Your task to perform on an android device: change keyboard looks Image 0: 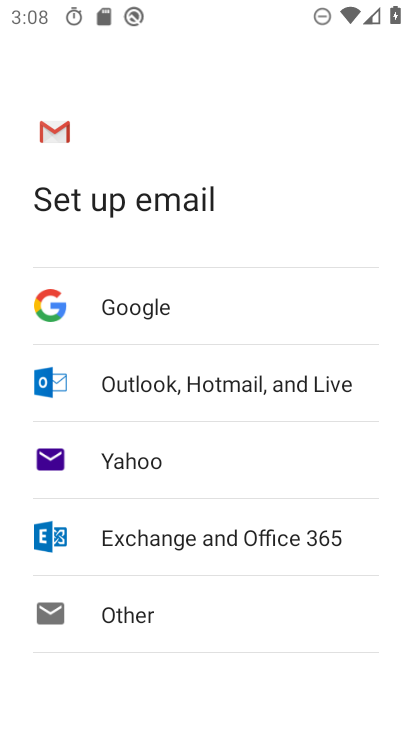
Step 0: press home button
Your task to perform on an android device: change keyboard looks Image 1: 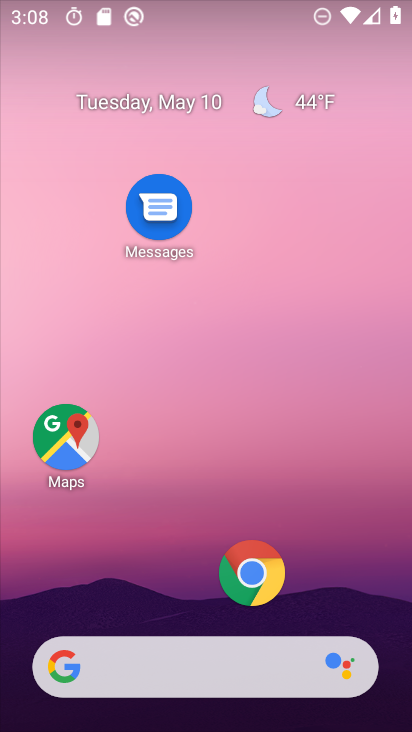
Step 1: drag from (195, 600) to (264, 193)
Your task to perform on an android device: change keyboard looks Image 2: 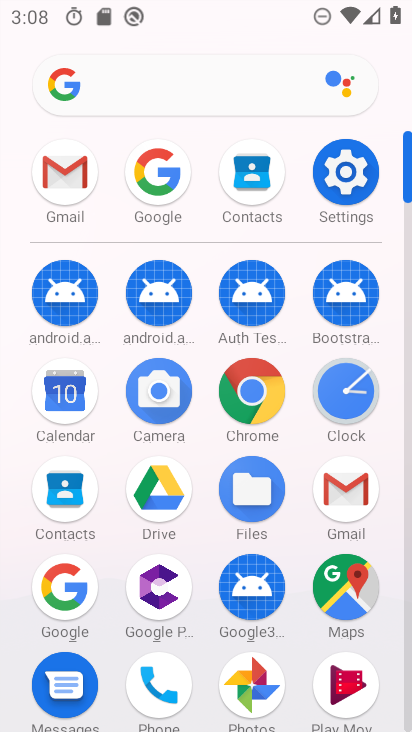
Step 2: click (318, 169)
Your task to perform on an android device: change keyboard looks Image 3: 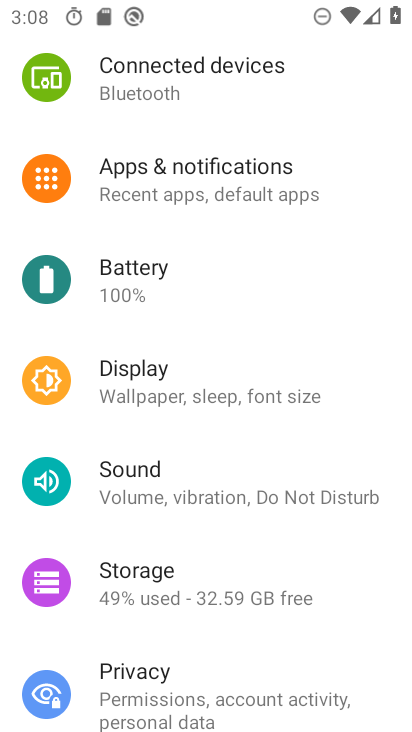
Step 3: drag from (211, 545) to (270, 303)
Your task to perform on an android device: change keyboard looks Image 4: 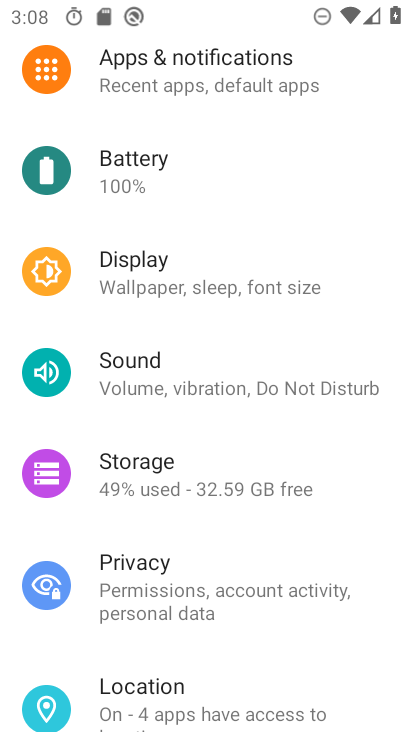
Step 4: drag from (224, 212) to (254, 92)
Your task to perform on an android device: change keyboard looks Image 5: 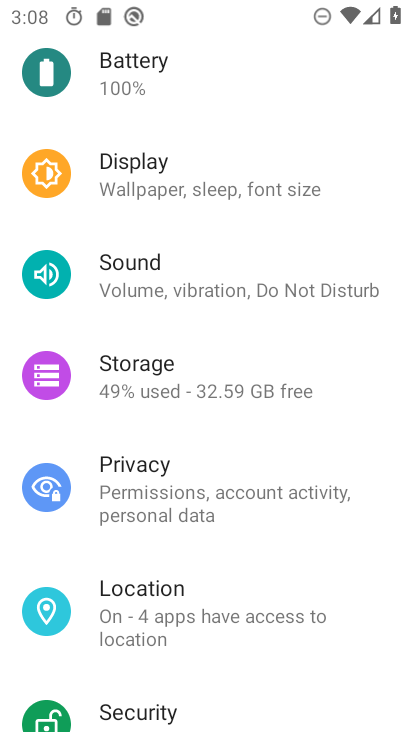
Step 5: drag from (236, 675) to (283, 272)
Your task to perform on an android device: change keyboard looks Image 6: 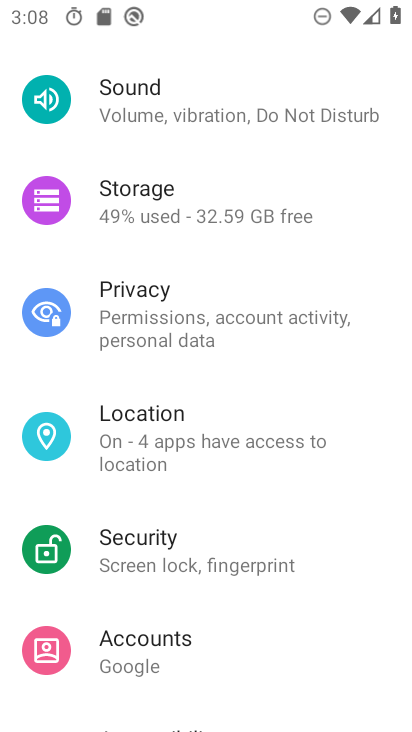
Step 6: drag from (211, 620) to (250, 285)
Your task to perform on an android device: change keyboard looks Image 7: 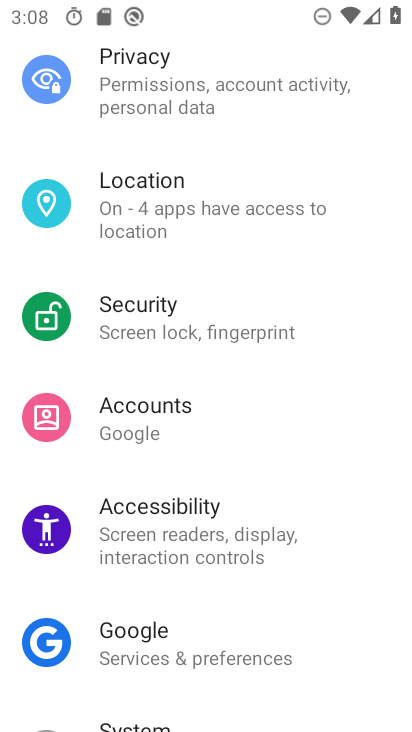
Step 7: drag from (194, 650) to (274, 289)
Your task to perform on an android device: change keyboard looks Image 8: 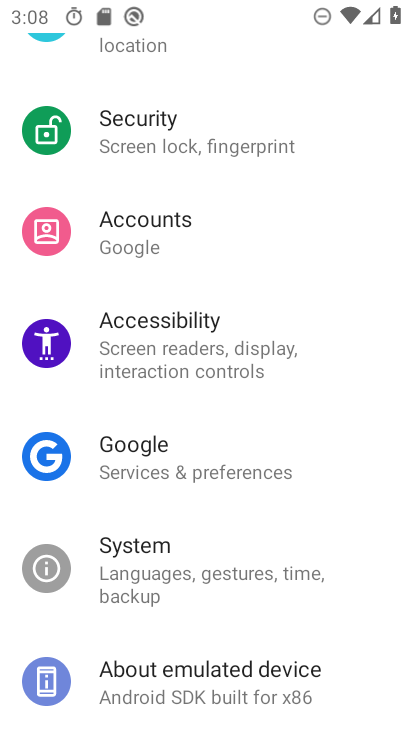
Step 8: click (222, 564)
Your task to perform on an android device: change keyboard looks Image 9: 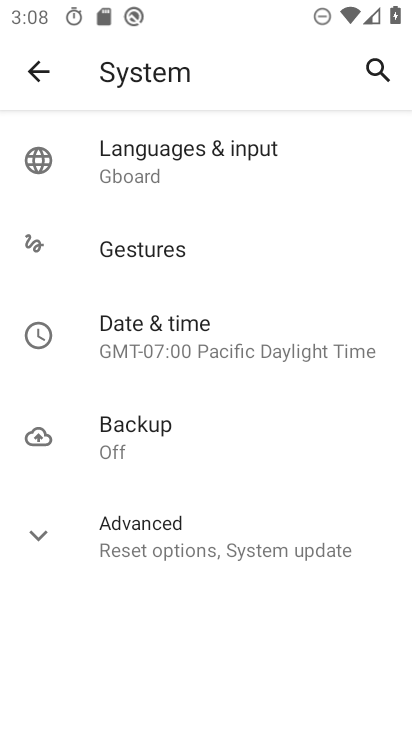
Step 9: click (168, 178)
Your task to perform on an android device: change keyboard looks Image 10: 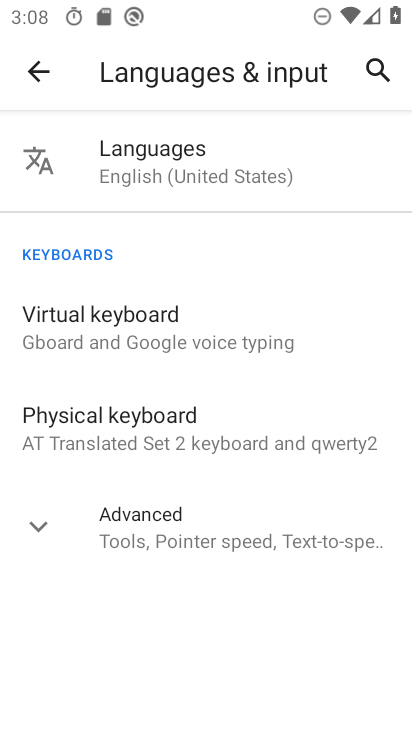
Step 10: click (111, 339)
Your task to perform on an android device: change keyboard looks Image 11: 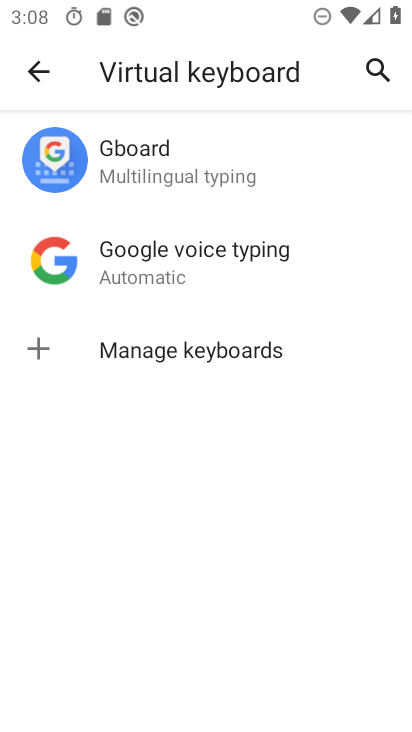
Step 11: click (189, 164)
Your task to perform on an android device: change keyboard looks Image 12: 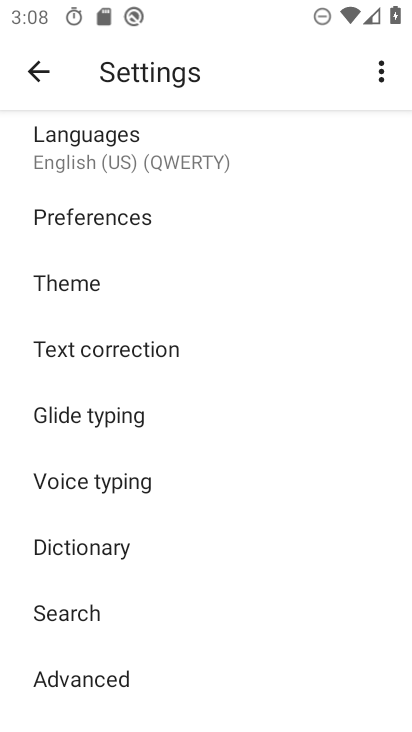
Step 12: click (100, 283)
Your task to perform on an android device: change keyboard looks Image 13: 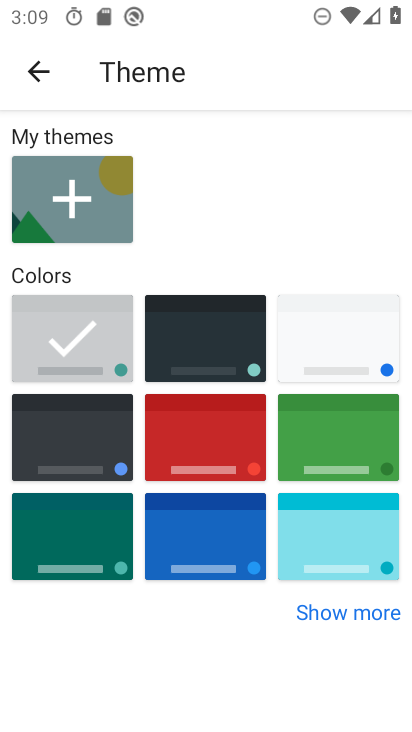
Step 13: click (325, 347)
Your task to perform on an android device: change keyboard looks Image 14: 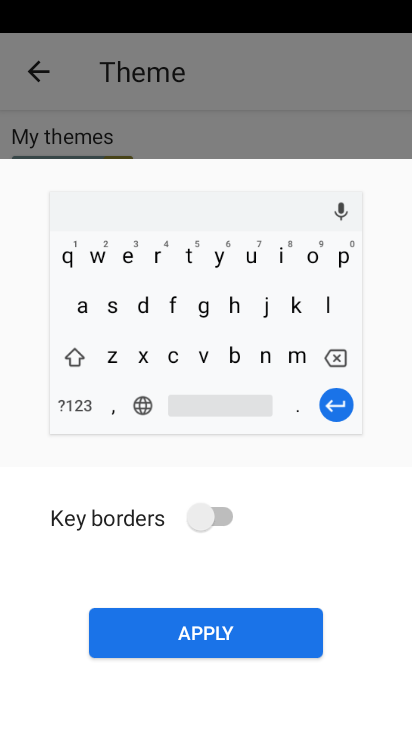
Step 14: click (183, 621)
Your task to perform on an android device: change keyboard looks Image 15: 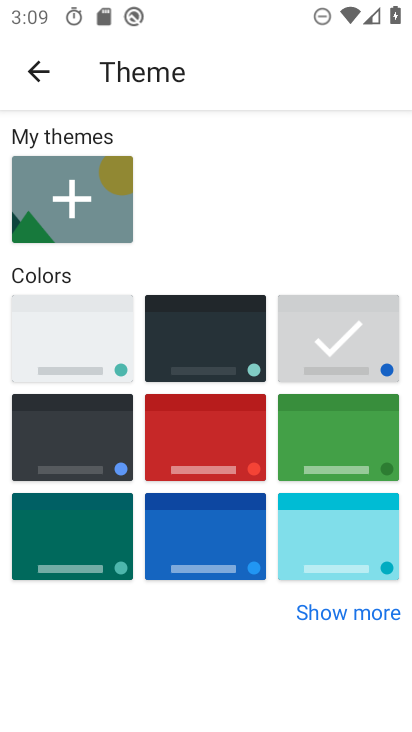
Step 15: task complete